Your task to perform on an android device: Open Google Chrome Image 0: 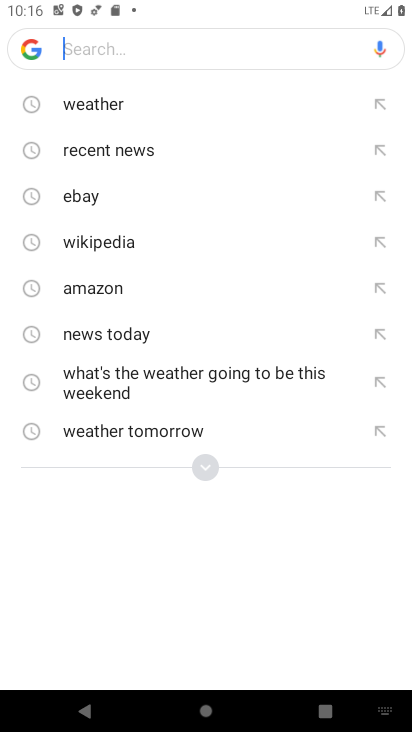
Step 0: press home button
Your task to perform on an android device: Open Google Chrome Image 1: 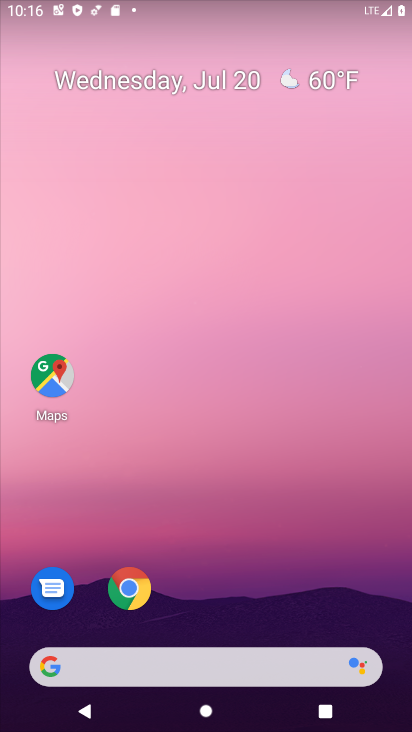
Step 1: click (137, 579)
Your task to perform on an android device: Open Google Chrome Image 2: 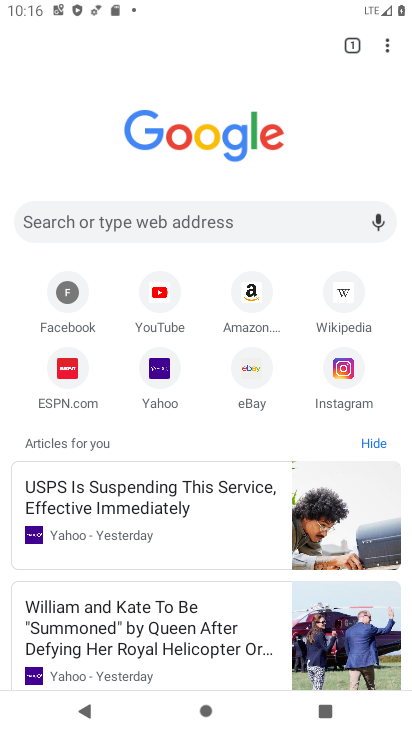
Step 2: task complete